Your task to perform on an android device: turn off sleep mode Image 0: 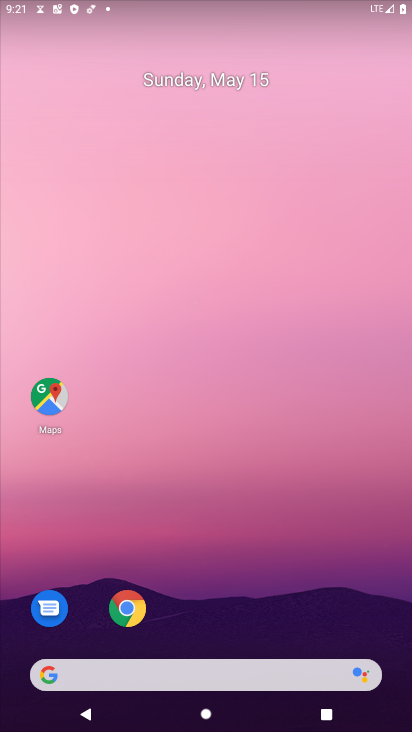
Step 0: drag from (344, 585) to (245, 38)
Your task to perform on an android device: turn off sleep mode Image 1: 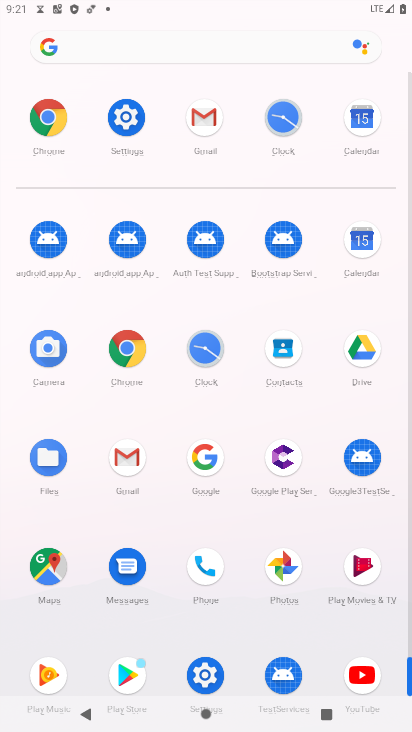
Step 1: click (120, 135)
Your task to perform on an android device: turn off sleep mode Image 2: 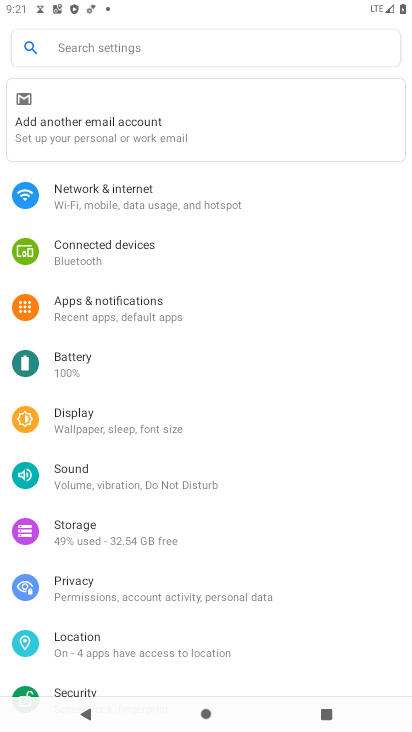
Step 2: click (54, 426)
Your task to perform on an android device: turn off sleep mode Image 3: 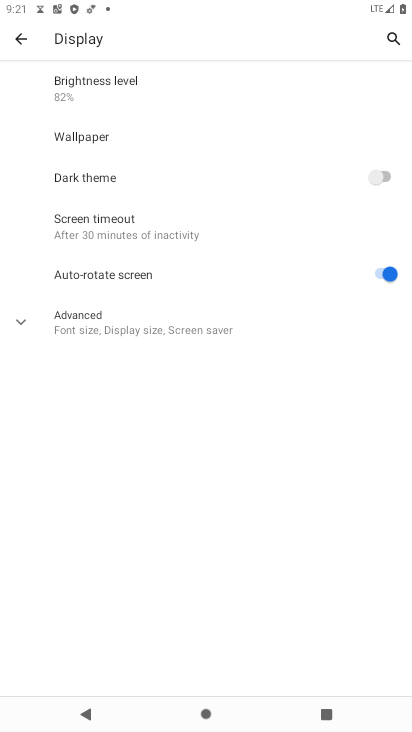
Step 3: click (55, 228)
Your task to perform on an android device: turn off sleep mode Image 4: 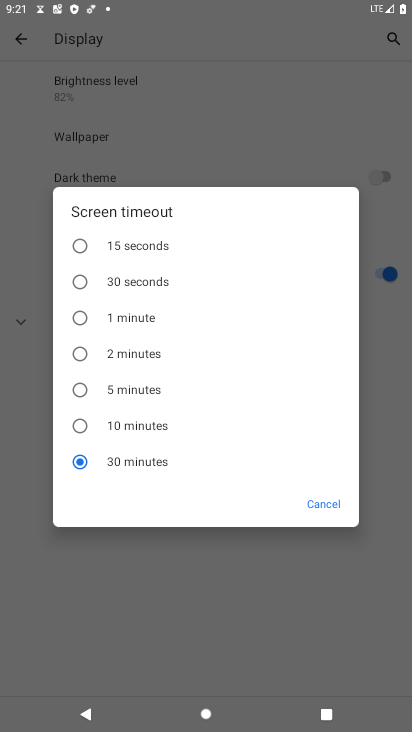
Step 4: task complete